Your task to perform on an android device: Search for Mexican restaurants on Maps Image 0: 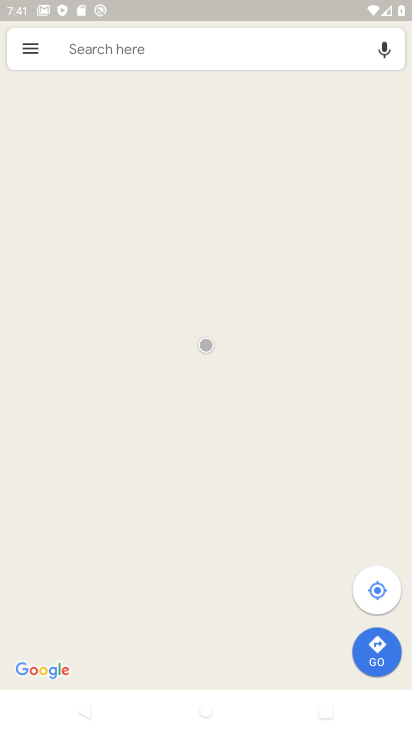
Step 0: press back button
Your task to perform on an android device: Search for Mexican restaurants on Maps Image 1: 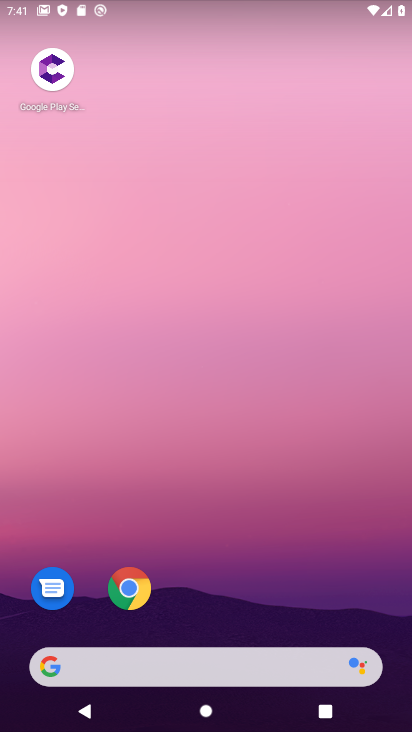
Step 1: drag from (223, 600) to (272, 86)
Your task to perform on an android device: Search for Mexican restaurants on Maps Image 2: 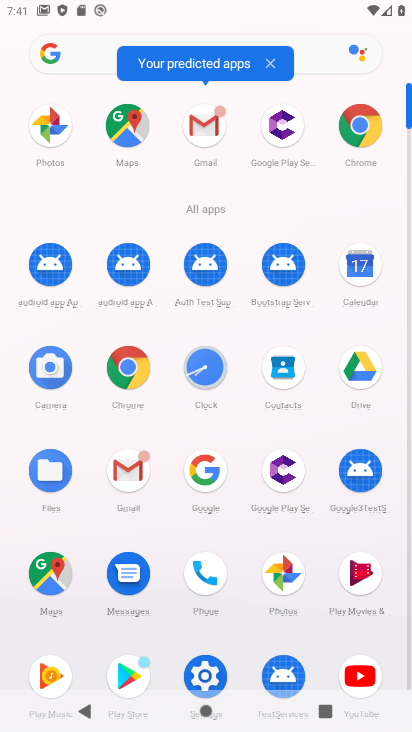
Step 2: click (63, 582)
Your task to perform on an android device: Search for Mexican restaurants on Maps Image 3: 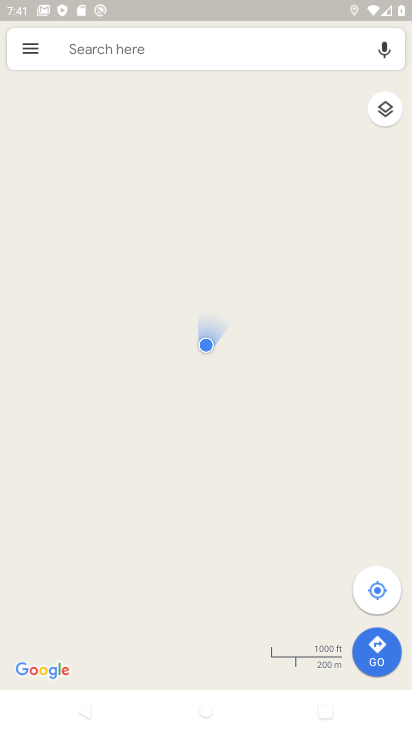
Step 3: click (146, 48)
Your task to perform on an android device: Search for Mexican restaurants on Maps Image 4: 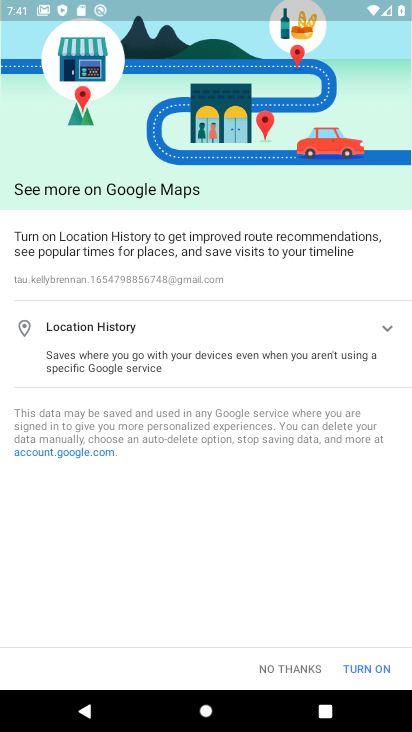
Step 4: click (367, 672)
Your task to perform on an android device: Search for Mexican restaurants on Maps Image 5: 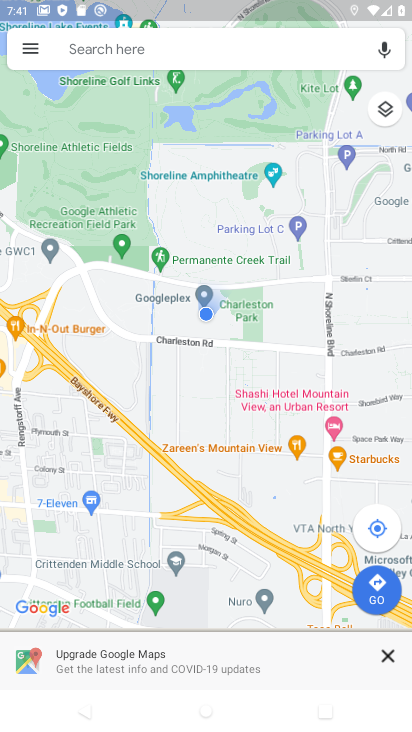
Step 5: click (172, 45)
Your task to perform on an android device: Search for Mexican restaurants on Maps Image 6: 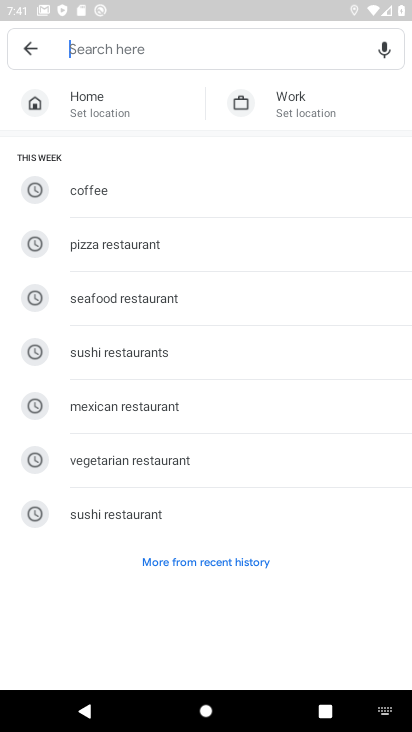
Step 6: click (169, 404)
Your task to perform on an android device: Search for Mexican restaurants on Maps Image 7: 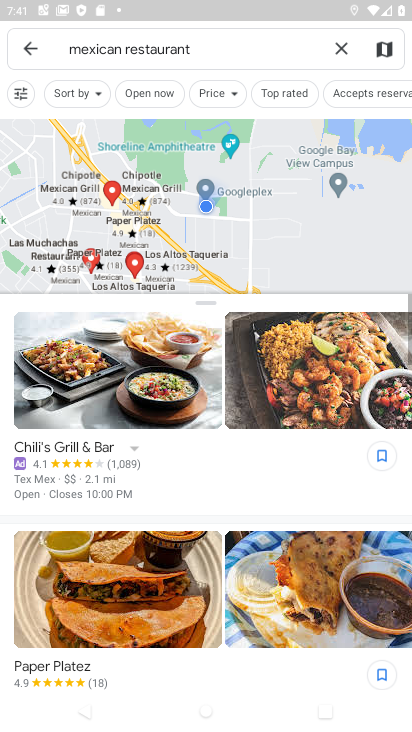
Step 7: task complete